Your task to perform on an android device: Open privacy settings Image 0: 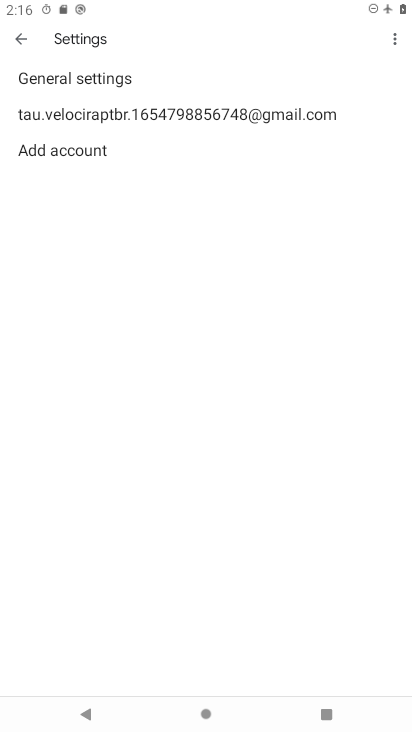
Step 0: press home button
Your task to perform on an android device: Open privacy settings Image 1: 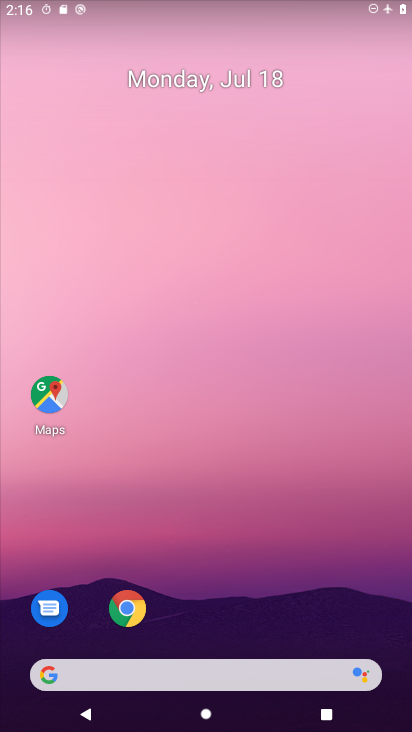
Step 1: drag from (233, 722) to (231, 171)
Your task to perform on an android device: Open privacy settings Image 2: 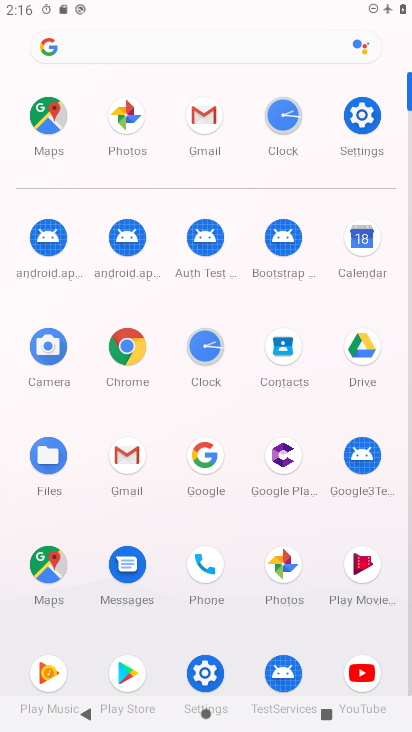
Step 2: click (369, 110)
Your task to perform on an android device: Open privacy settings Image 3: 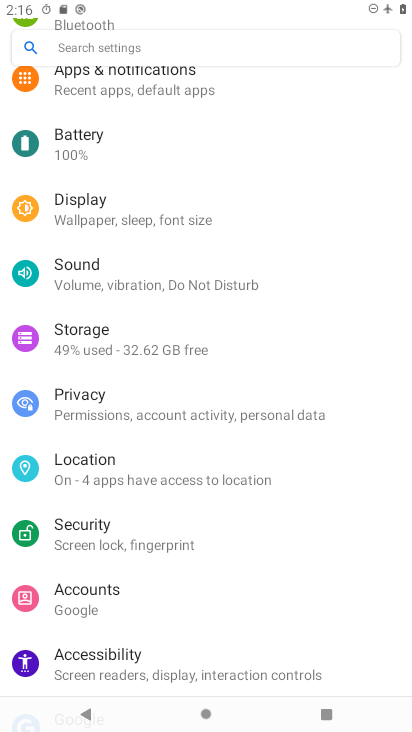
Step 3: click (93, 395)
Your task to perform on an android device: Open privacy settings Image 4: 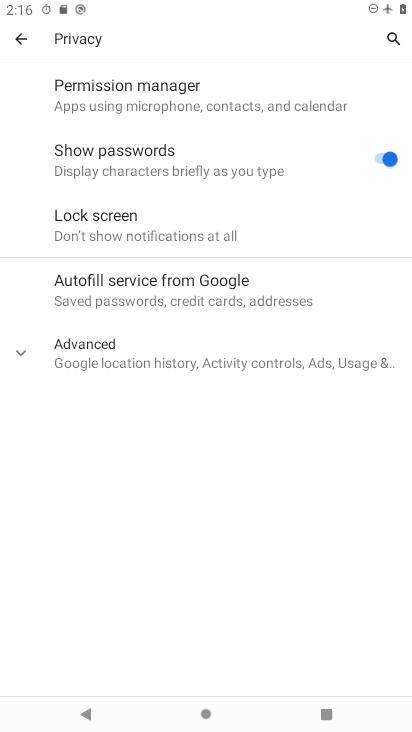
Step 4: task complete